Your task to perform on an android device: turn on javascript in the chrome app Image 0: 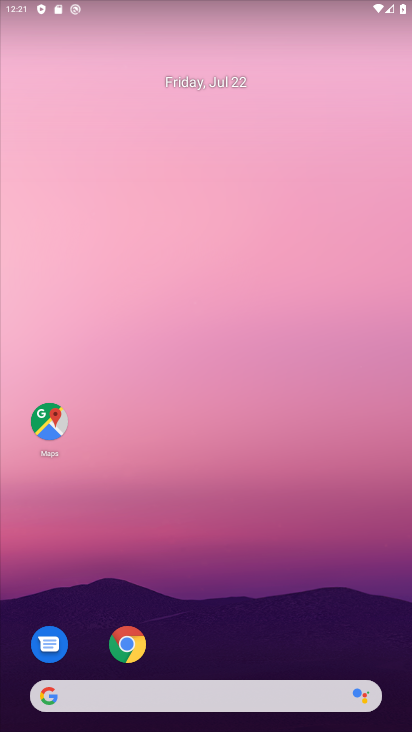
Step 0: click (146, 632)
Your task to perform on an android device: turn on javascript in the chrome app Image 1: 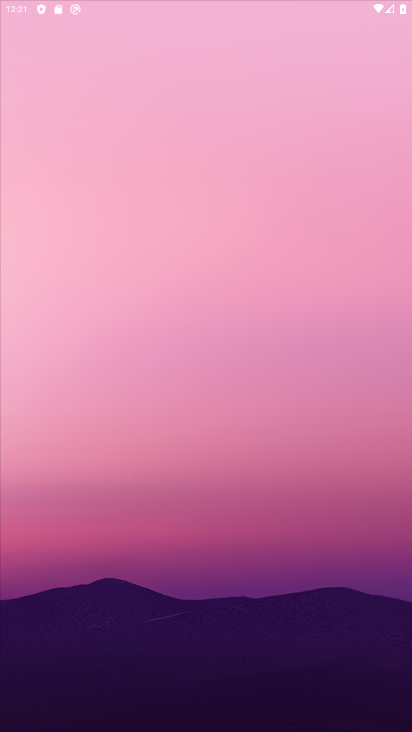
Step 1: click (127, 632)
Your task to perform on an android device: turn on javascript in the chrome app Image 2: 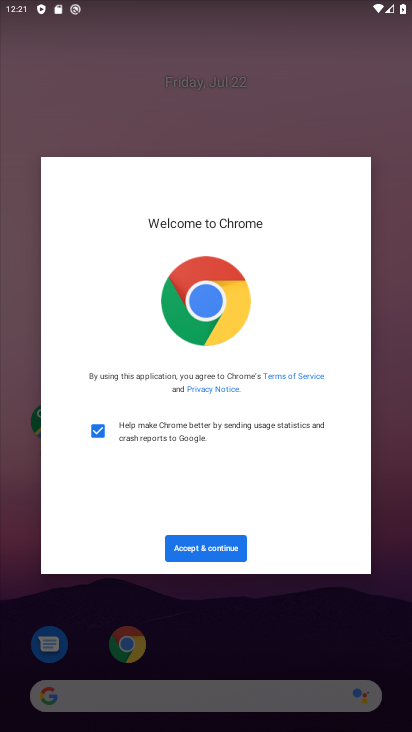
Step 2: click (220, 544)
Your task to perform on an android device: turn on javascript in the chrome app Image 3: 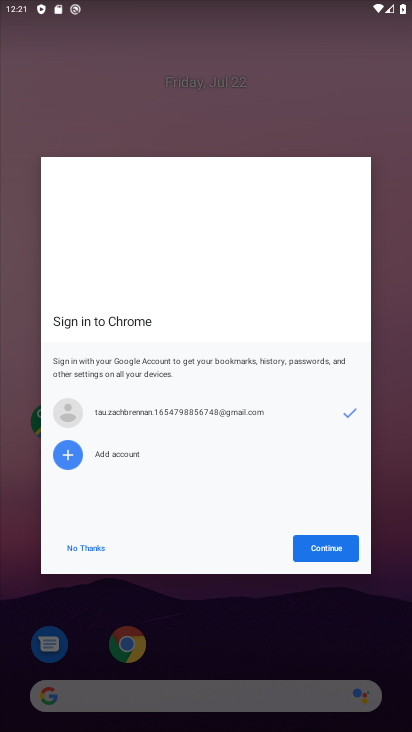
Step 3: click (317, 554)
Your task to perform on an android device: turn on javascript in the chrome app Image 4: 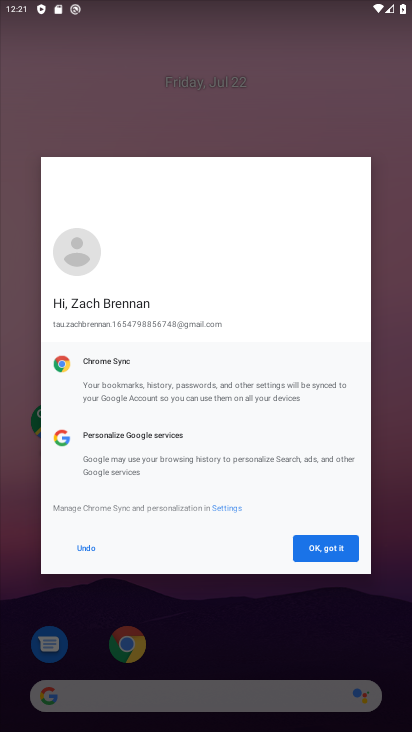
Step 4: click (317, 554)
Your task to perform on an android device: turn on javascript in the chrome app Image 5: 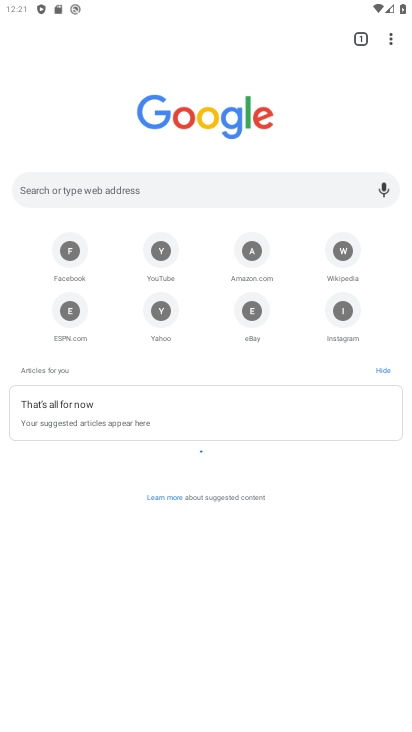
Step 5: click (397, 45)
Your task to perform on an android device: turn on javascript in the chrome app Image 6: 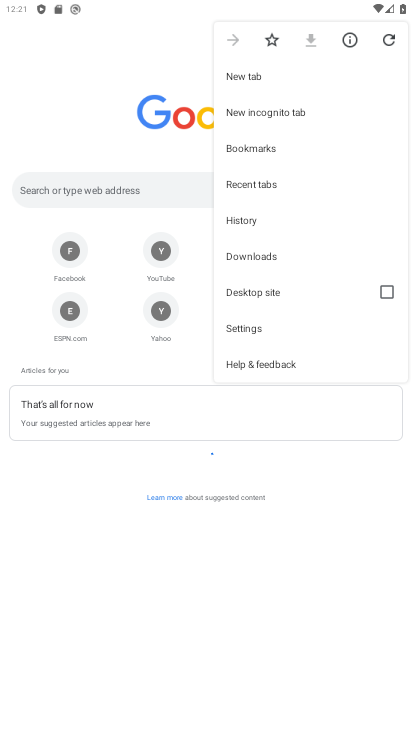
Step 6: click (273, 333)
Your task to perform on an android device: turn on javascript in the chrome app Image 7: 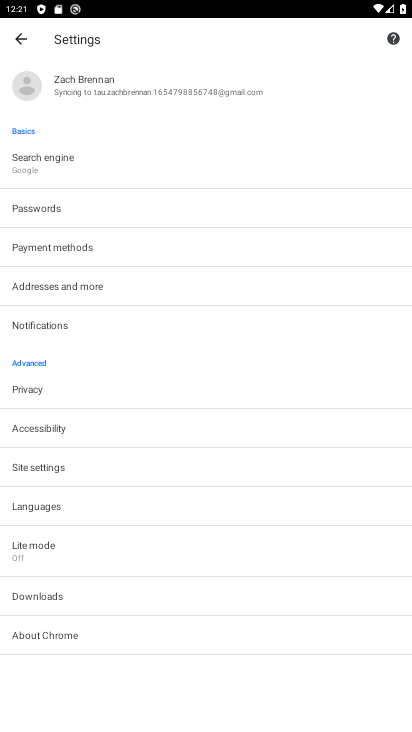
Step 7: click (75, 473)
Your task to perform on an android device: turn on javascript in the chrome app Image 8: 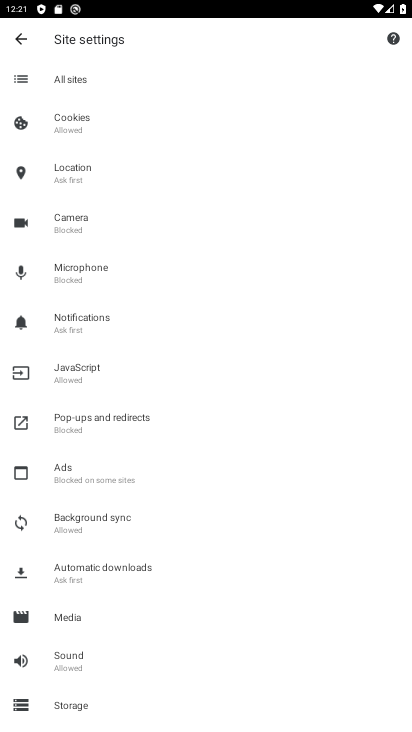
Step 8: click (85, 390)
Your task to perform on an android device: turn on javascript in the chrome app Image 9: 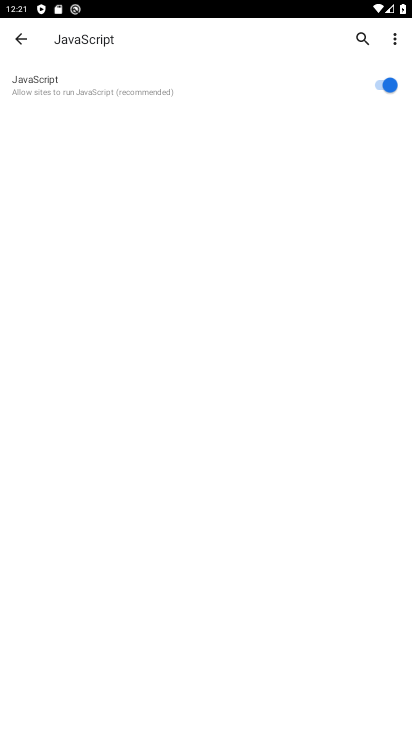
Step 9: task complete